Your task to perform on an android device: Search for sushi restaurants on Maps Image 0: 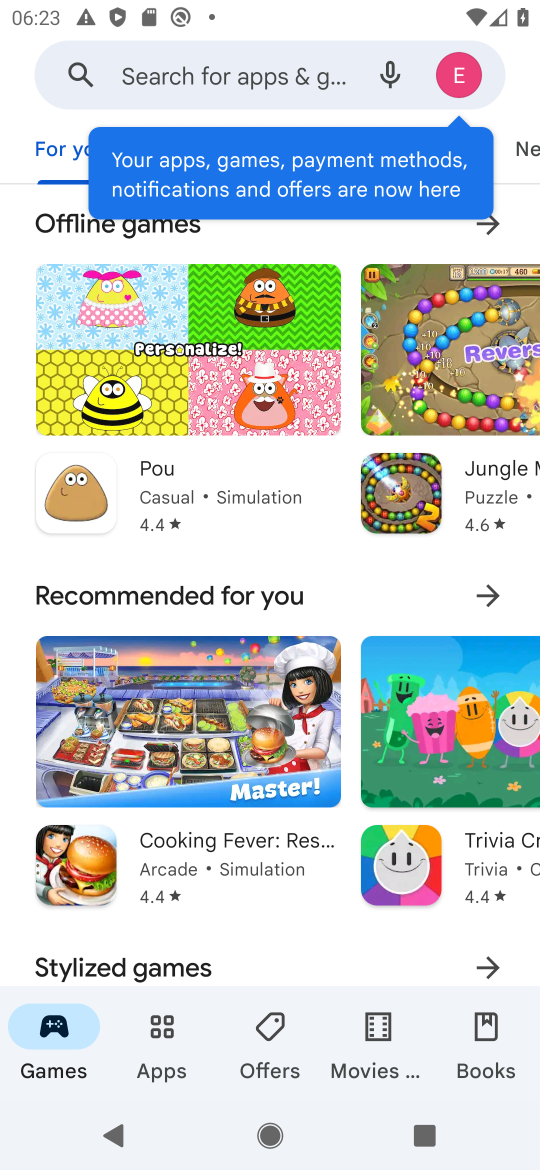
Step 0: press home button
Your task to perform on an android device: Search for sushi restaurants on Maps Image 1: 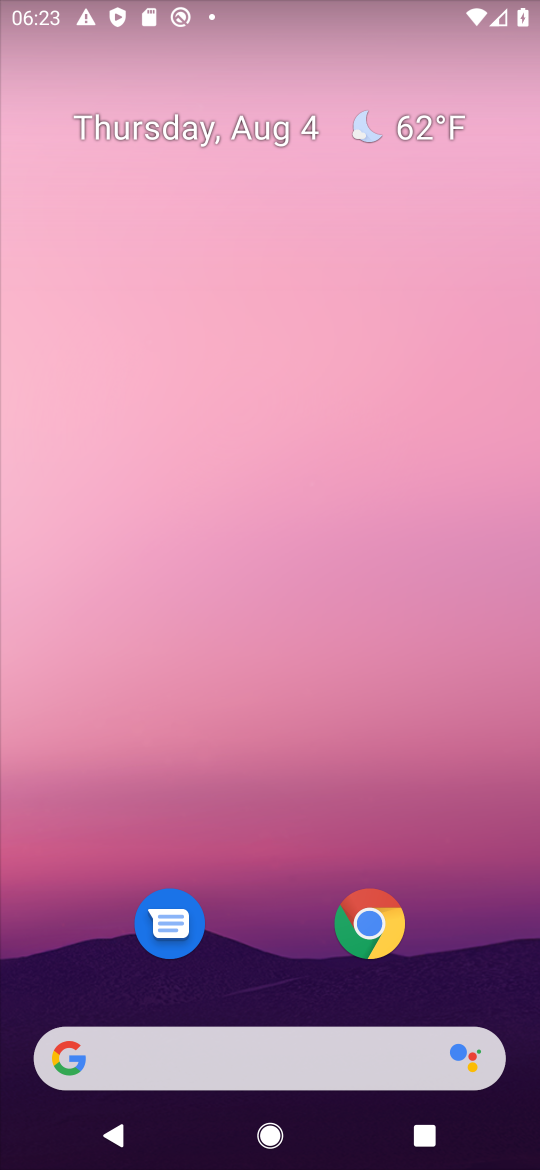
Step 1: drag from (286, 913) to (223, 206)
Your task to perform on an android device: Search for sushi restaurants on Maps Image 2: 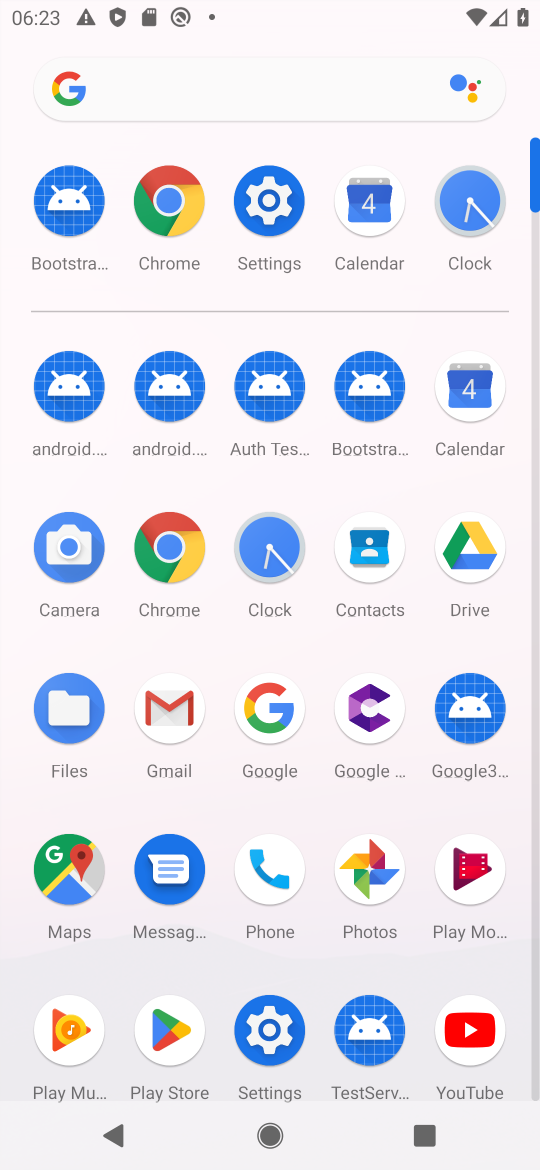
Step 2: click (56, 869)
Your task to perform on an android device: Search for sushi restaurants on Maps Image 3: 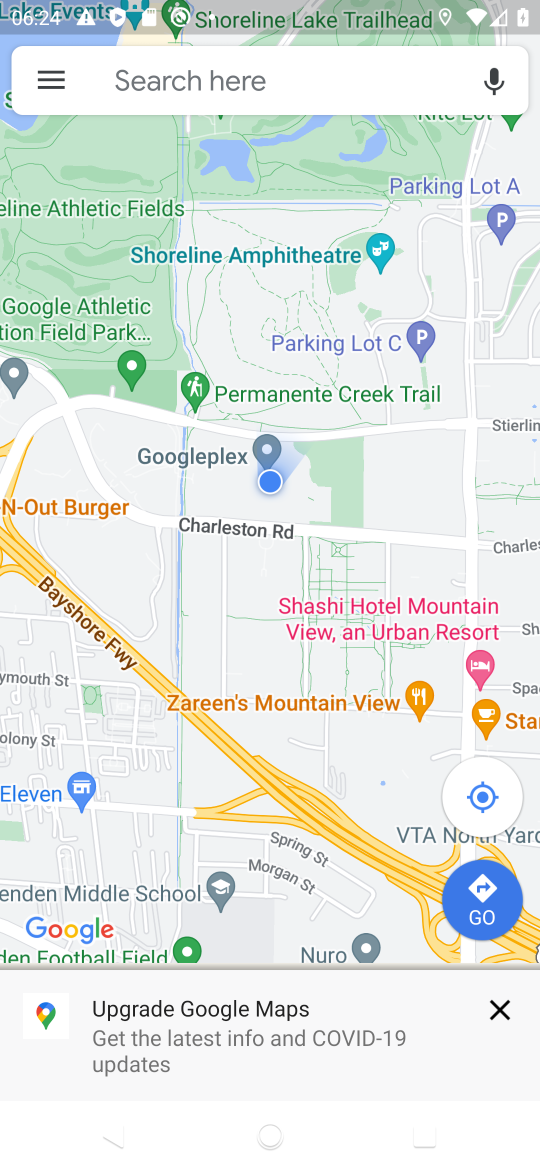
Step 3: click (210, 89)
Your task to perform on an android device: Search for sushi restaurants on Maps Image 4: 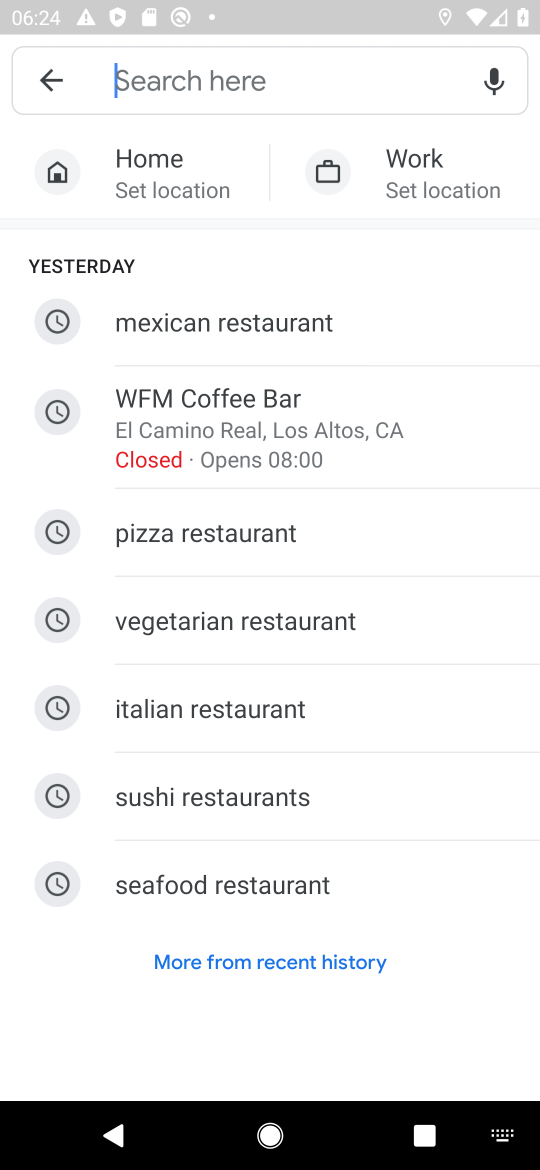
Step 4: click (301, 789)
Your task to perform on an android device: Search for sushi restaurants on Maps Image 5: 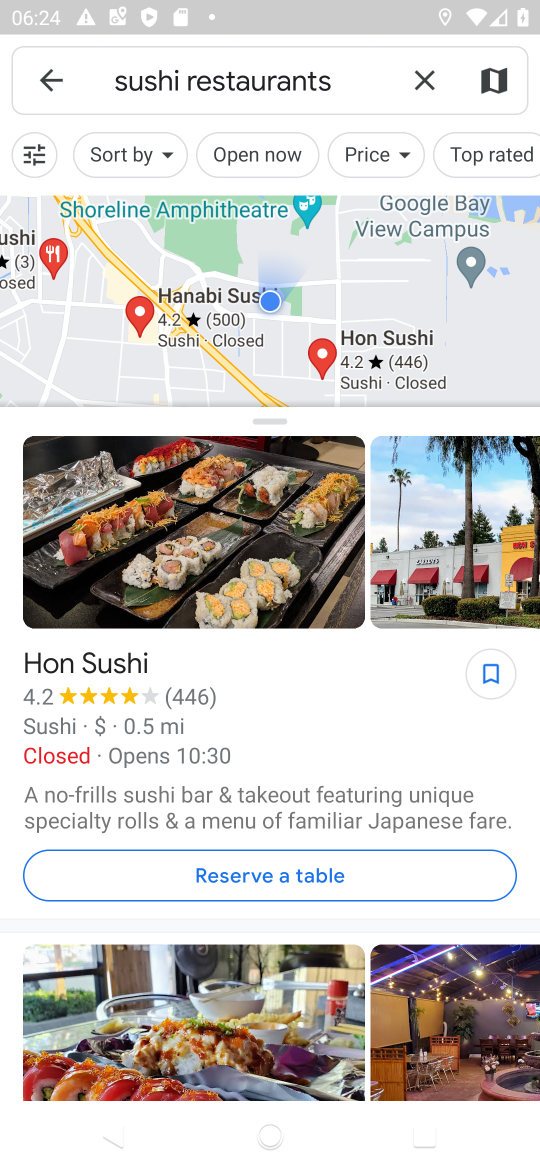
Step 5: task complete